Your task to perform on an android device: Open Google Chrome Image 0: 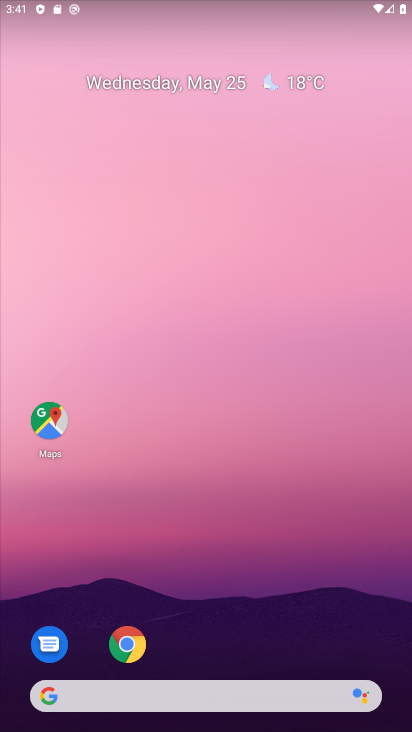
Step 0: click (126, 643)
Your task to perform on an android device: Open Google Chrome Image 1: 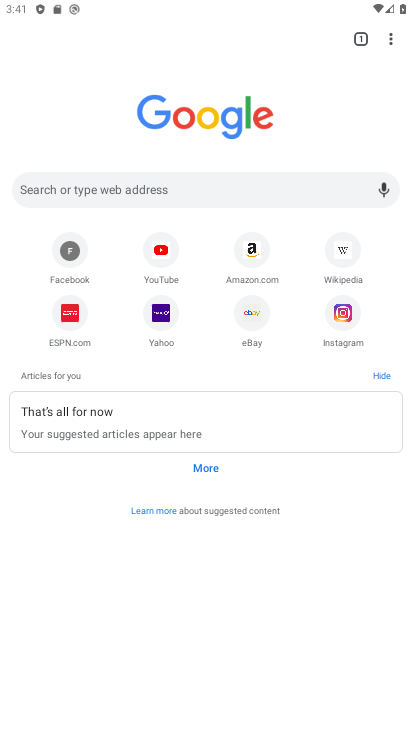
Step 1: task complete